Your task to perform on an android device: Go to Android settings Image 0: 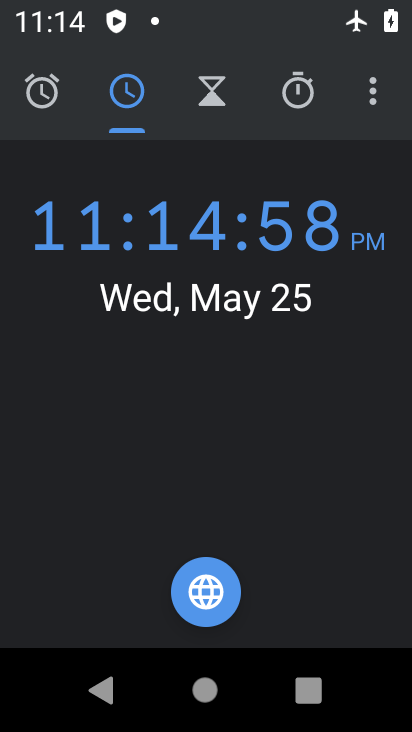
Step 0: press home button
Your task to perform on an android device: Go to Android settings Image 1: 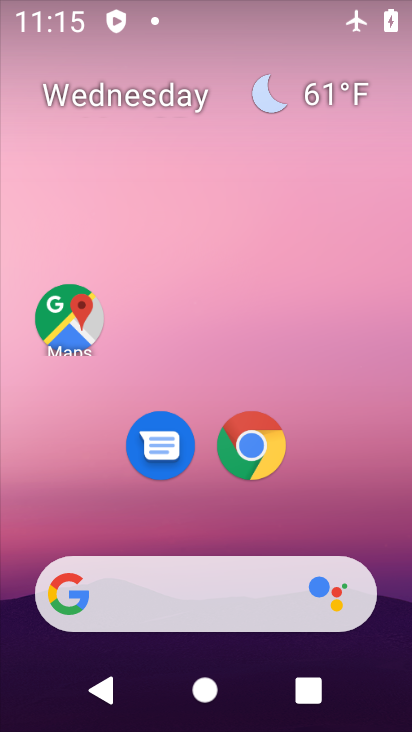
Step 1: drag from (354, 476) to (366, 90)
Your task to perform on an android device: Go to Android settings Image 2: 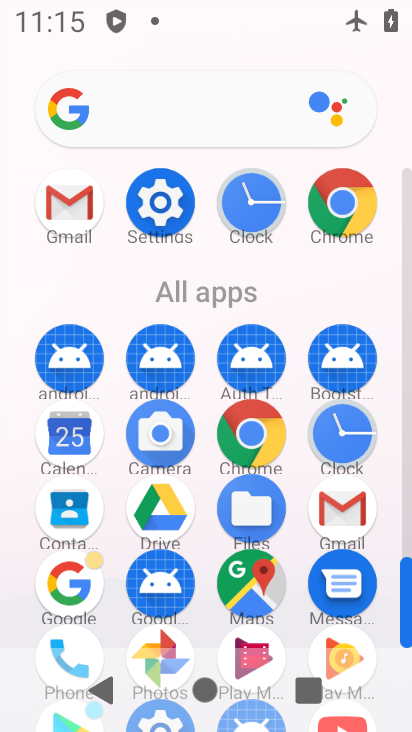
Step 2: click (162, 215)
Your task to perform on an android device: Go to Android settings Image 3: 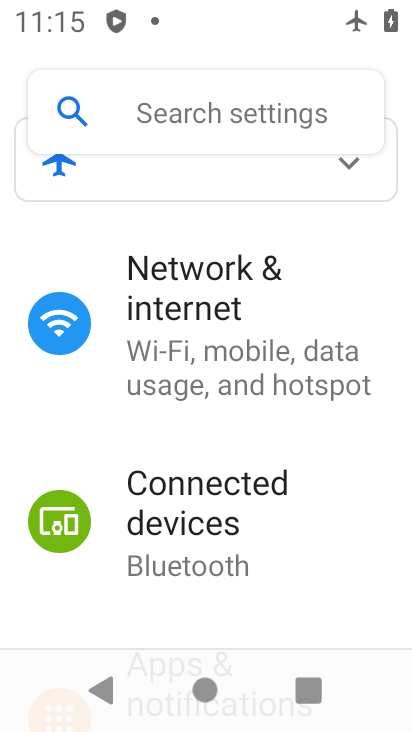
Step 3: task complete